Your task to perform on an android device: Go to Android settings Image 0: 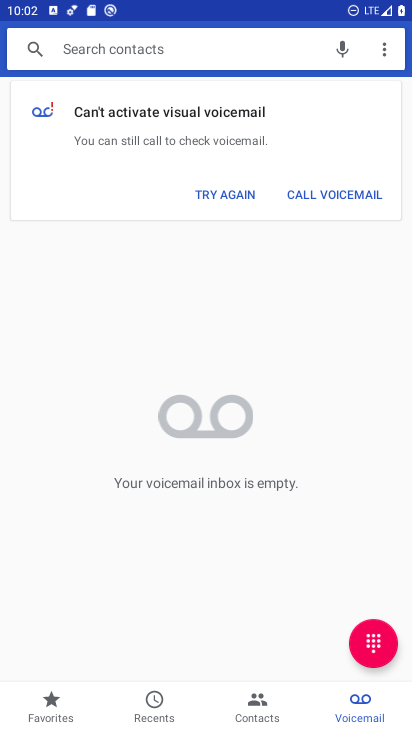
Step 0: press home button
Your task to perform on an android device: Go to Android settings Image 1: 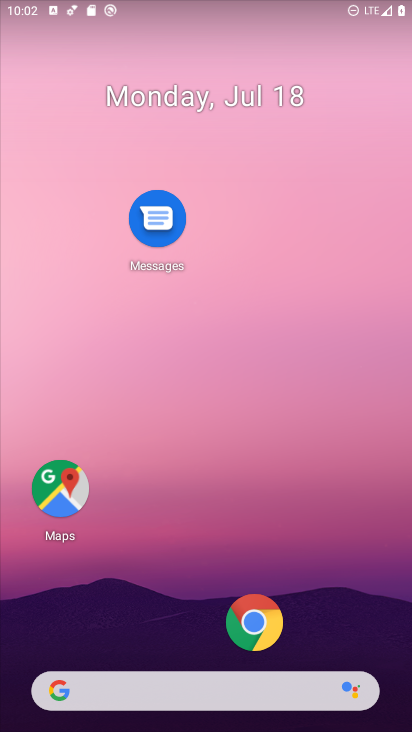
Step 1: press home button
Your task to perform on an android device: Go to Android settings Image 2: 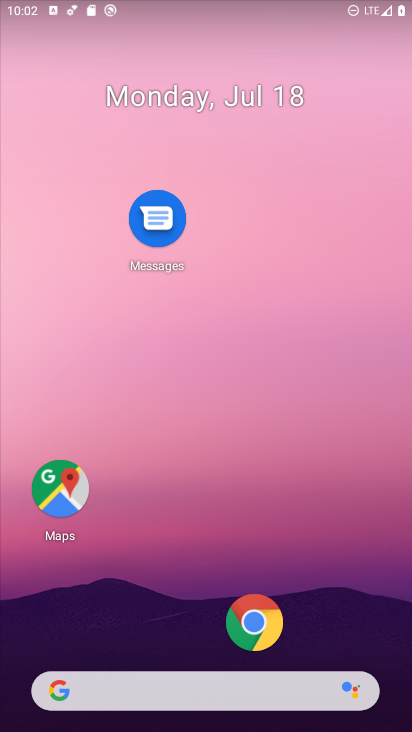
Step 2: drag from (211, 694) to (244, 146)
Your task to perform on an android device: Go to Android settings Image 3: 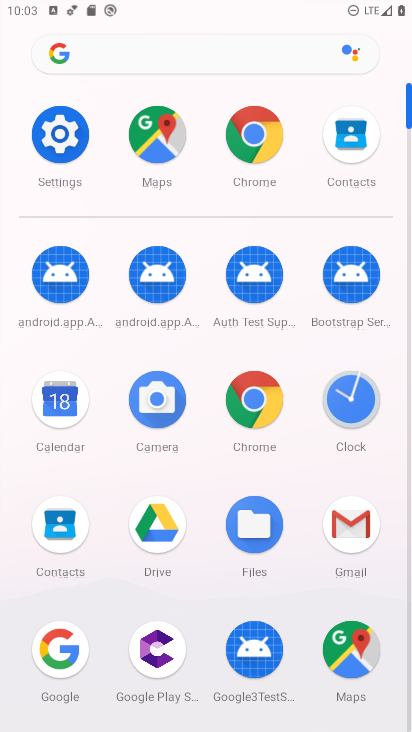
Step 3: click (55, 155)
Your task to perform on an android device: Go to Android settings Image 4: 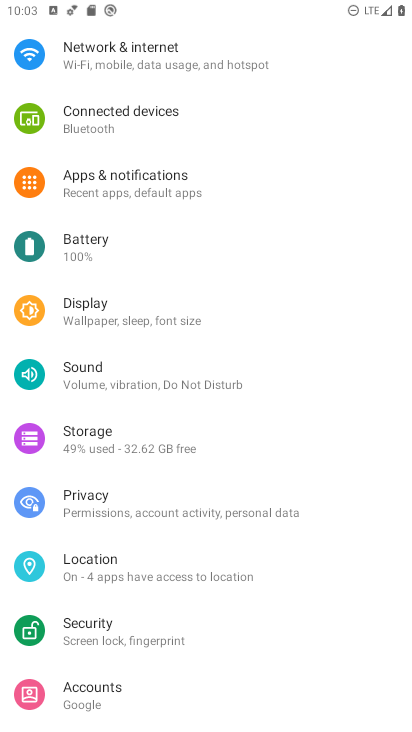
Step 4: drag from (173, 560) to (201, 174)
Your task to perform on an android device: Go to Android settings Image 5: 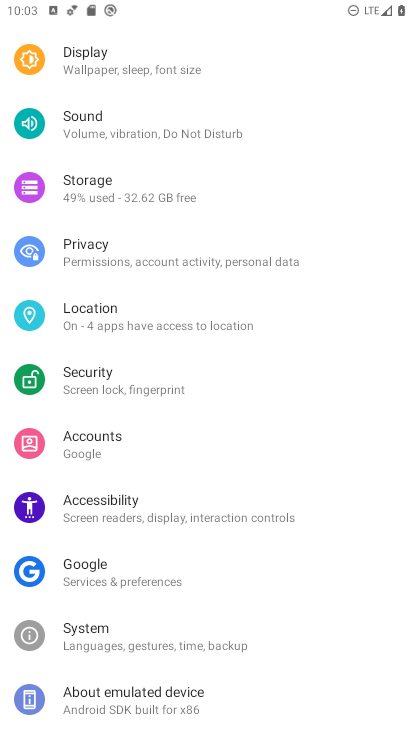
Step 5: drag from (179, 578) to (200, 318)
Your task to perform on an android device: Go to Android settings Image 6: 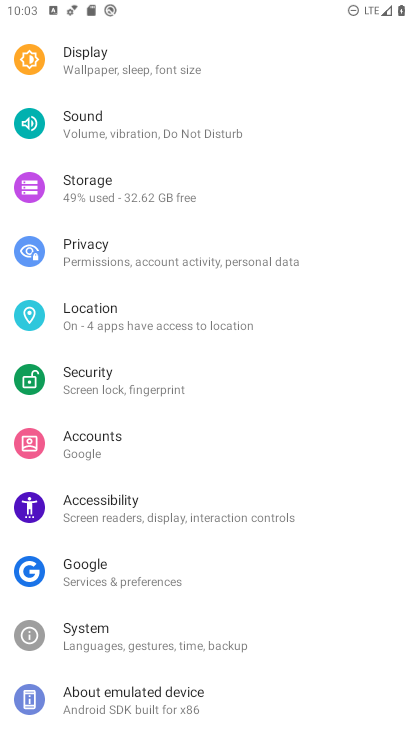
Step 6: click (212, 701)
Your task to perform on an android device: Go to Android settings Image 7: 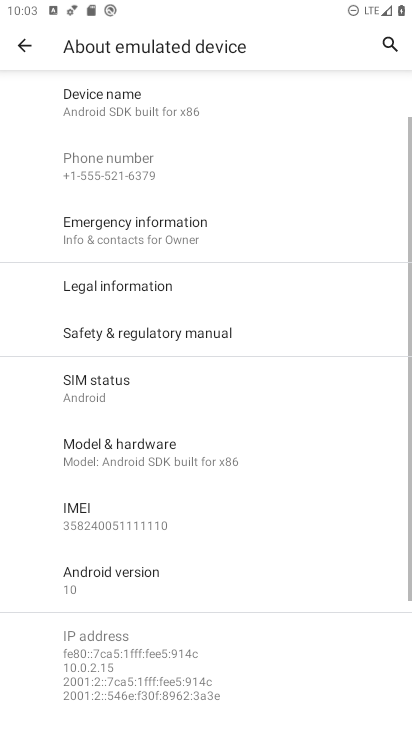
Step 7: click (180, 590)
Your task to perform on an android device: Go to Android settings Image 8: 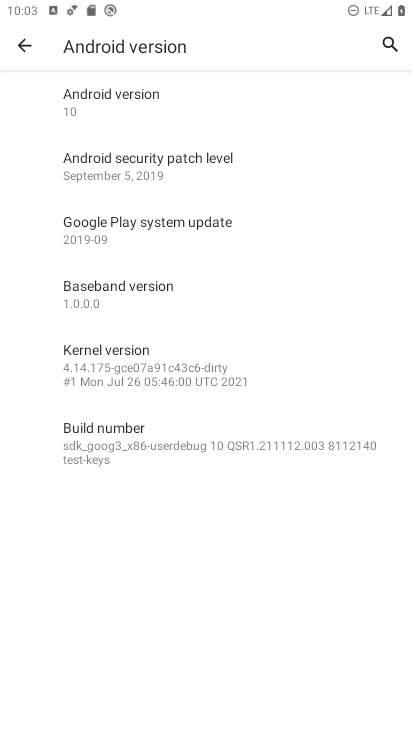
Step 8: task complete